Your task to perform on an android device: open app "PUBG MOBILE" (install if not already installed) and go to login screen Image 0: 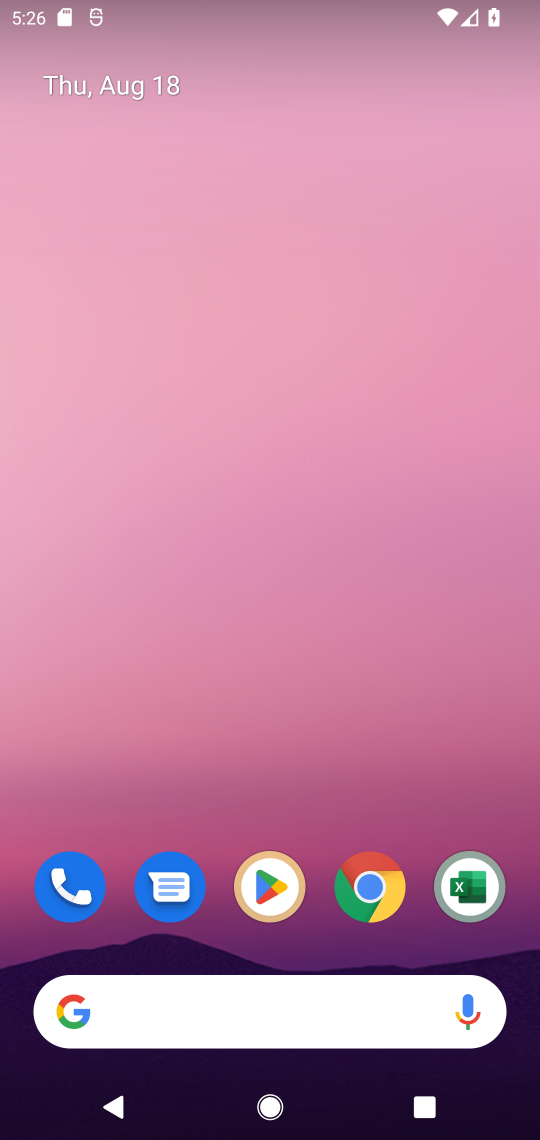
Step 0: click (272, 889)
Your task to perform on an android device: open app "PUBG MOBILE" (install if not already installed) and go to login screen Image 1: 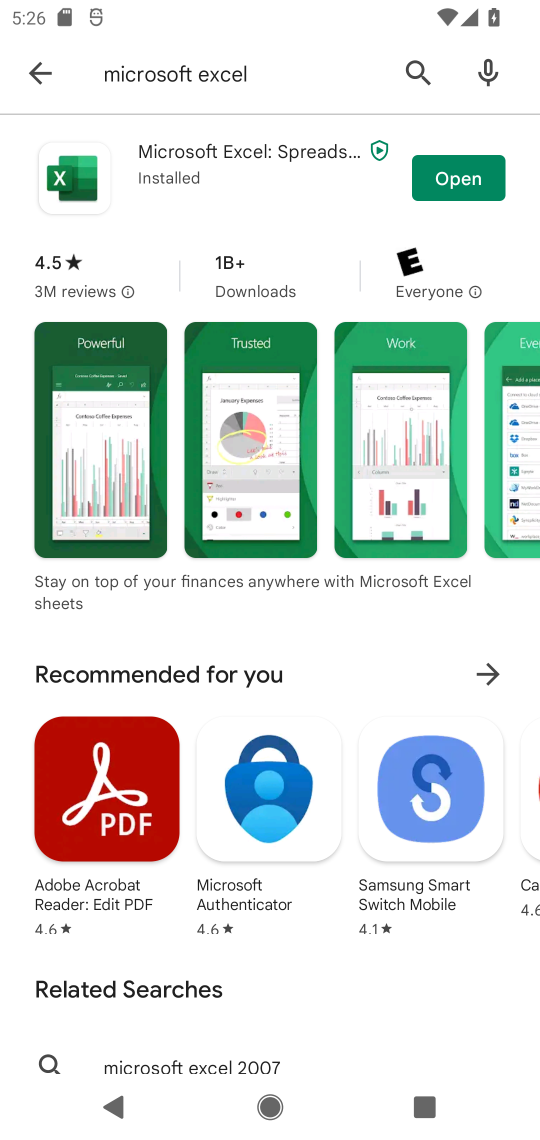
Step 1: click (422, 66)
Your task to perform on an android device: open app "PUBG MOBILE" (install if not already installed) and go to login screen Image 2: 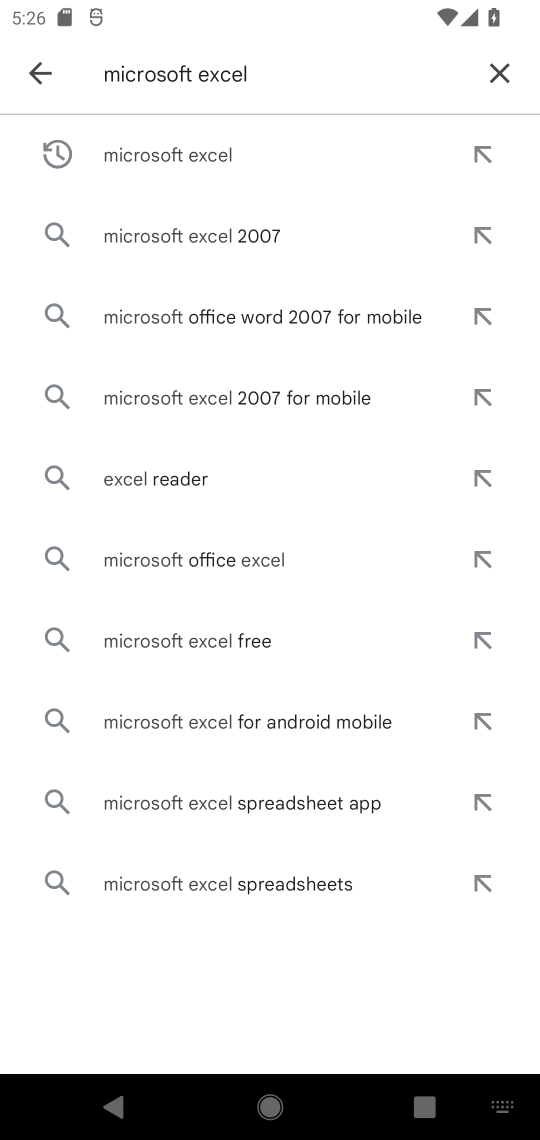
Step 2: click (500, 63)
Your task to perform on an android device: open app "PUBG MOBILE" (install if not already installed) and go to login screen Image 3: 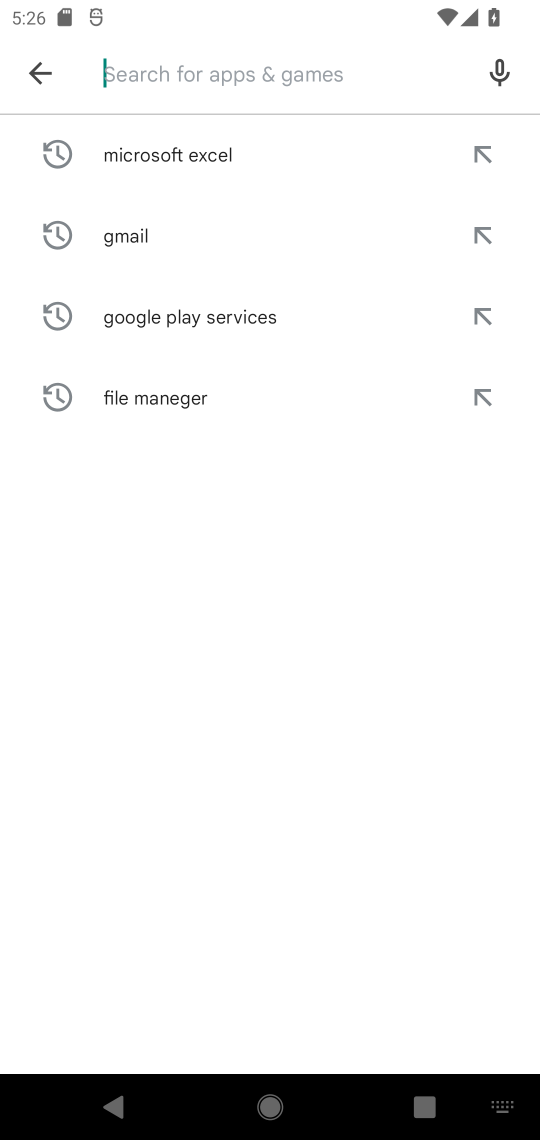
Step 3: type "PUBG MOBILE"
Your task to perform on an android device: open app "PUBG MOBILE" (install if not already installed) and go to login screen Image 4: 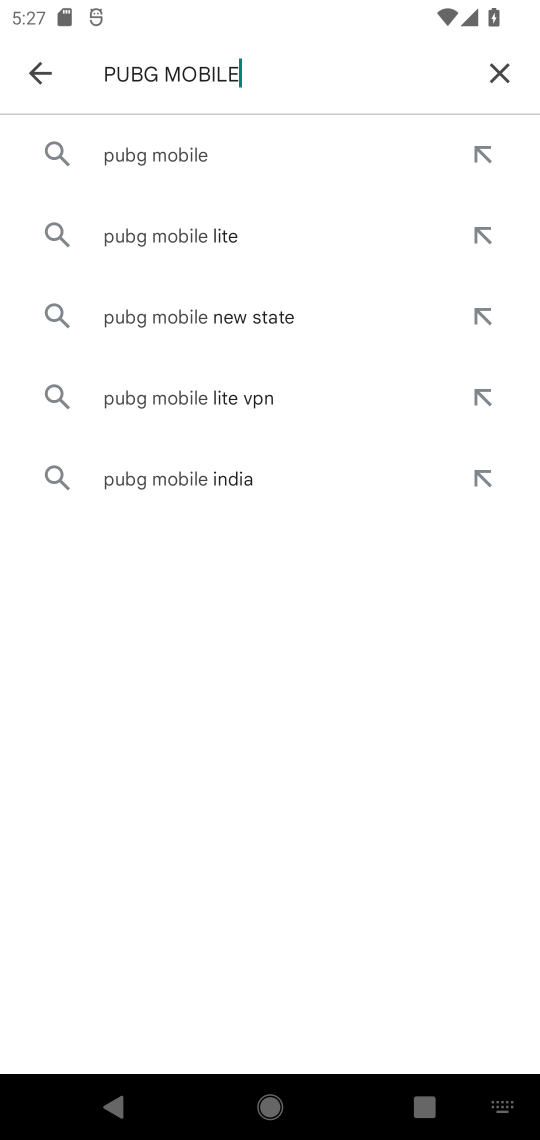
Step 4: click (138, 150)
Your task to perform on an android device: open app "PUBG MOBILE" (install if not already installed) and go to login screen Image 5: 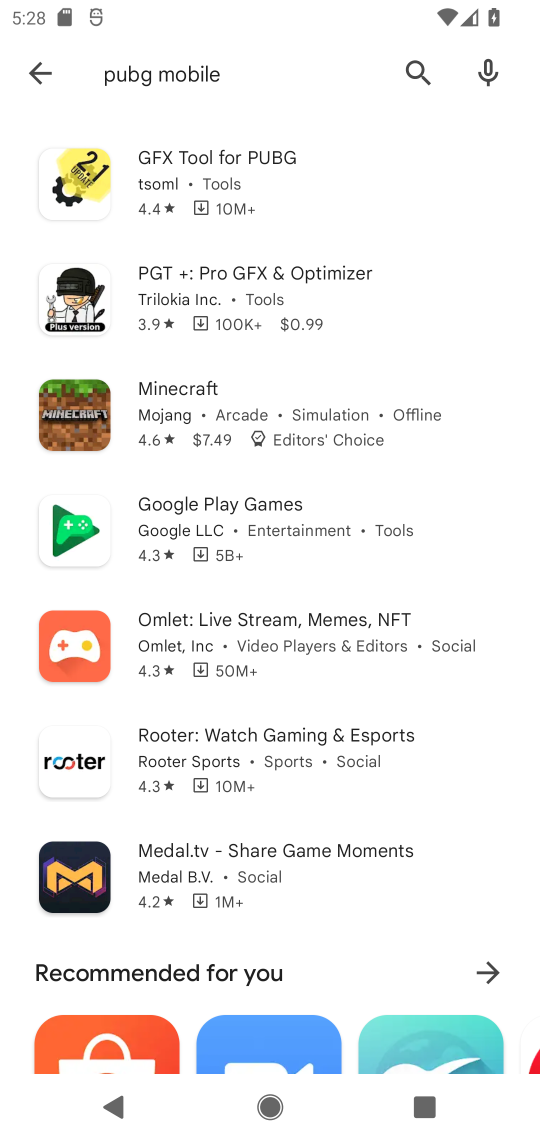
Step 5: task complete